Your task to perform on an android device: See recent photos Image 0: 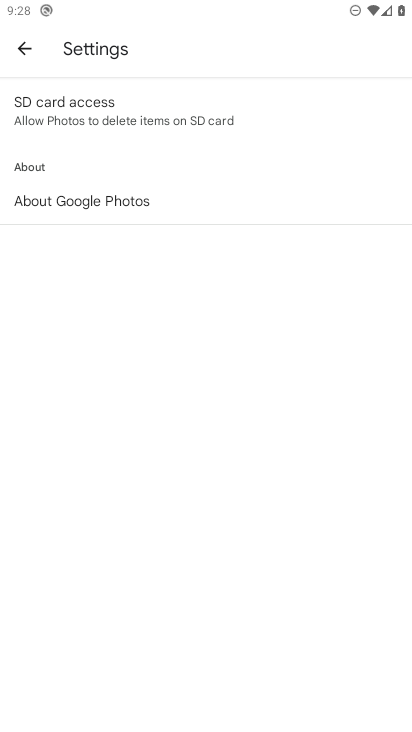
Step 0: press home button
Your task to perform on an android device: See recent photos Image 1: 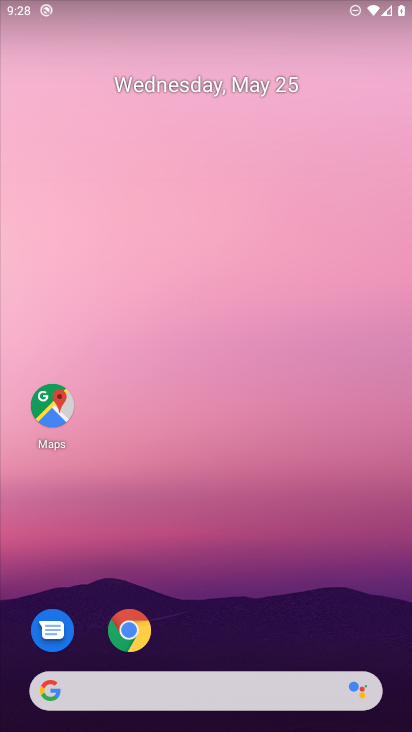
Step 1: drag from (257, 671) to (259, 412)
Your task to perform on an android device: See recent photos Image 2: 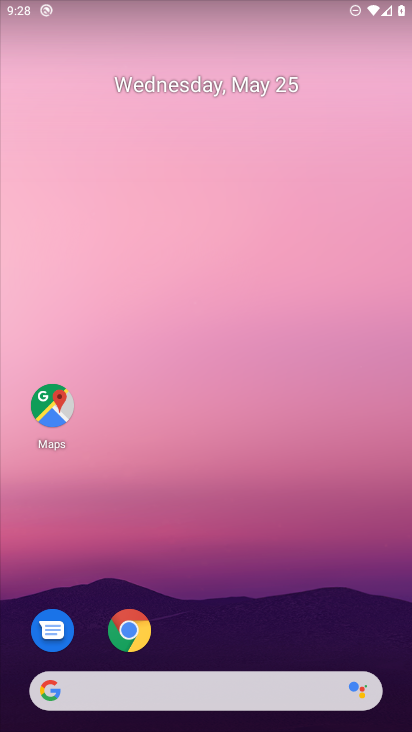
Step 2: drag from (211, 676) to (222, 366)
Your task to perform on an android device: See recent photos Image 3: 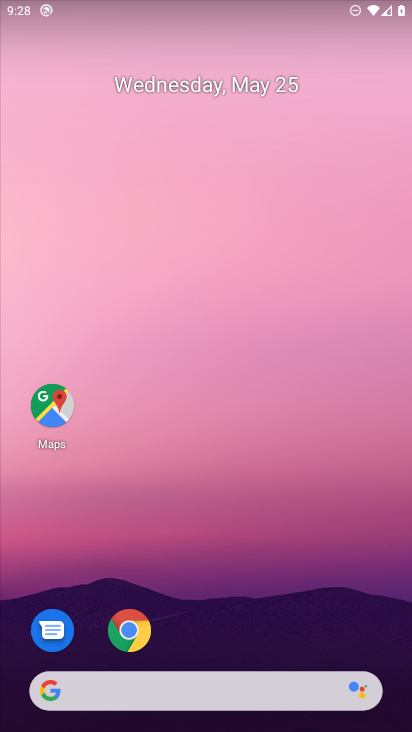
Step 3: drag from (214, 656) to (214, 323)
Your task to perform on an android device: See recent photos Image 4: 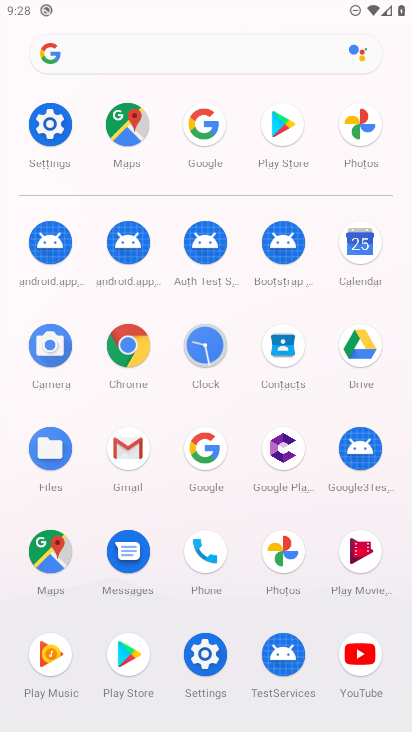
Step 4: click (359, 132)
Your task to perform on an android device: See recent photos Image 5: 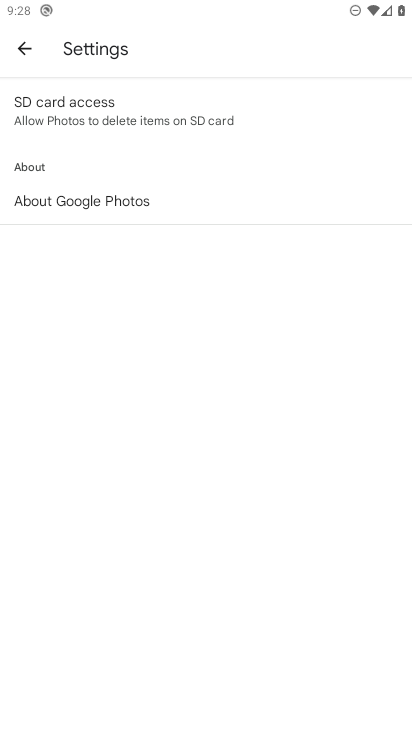
Step 5: click (25, 49)
Your task to perform on an android device: See recent photos Image 6: 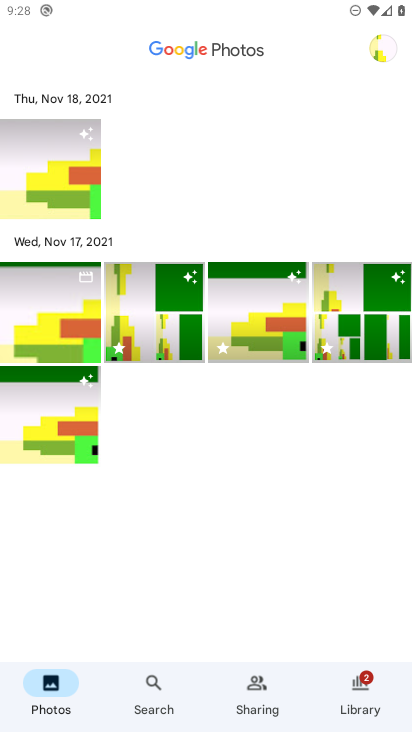
Step 6: click (59, 191)
Your task to perform on an android device: See recent photos Image 7: 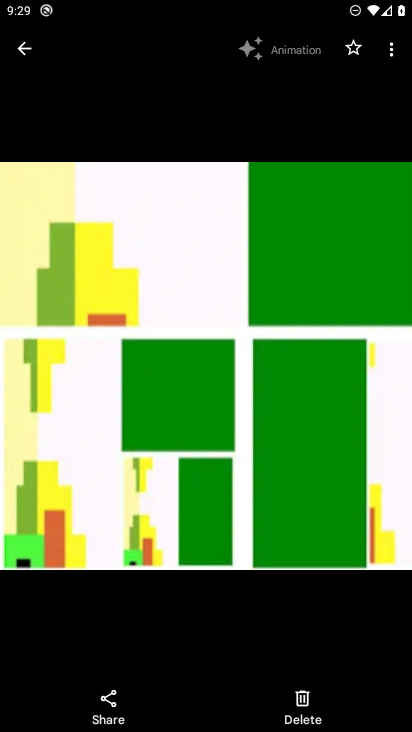
Step 7: task complete